Your task to perform on an android device: change your default location settings in chrome Image 0: 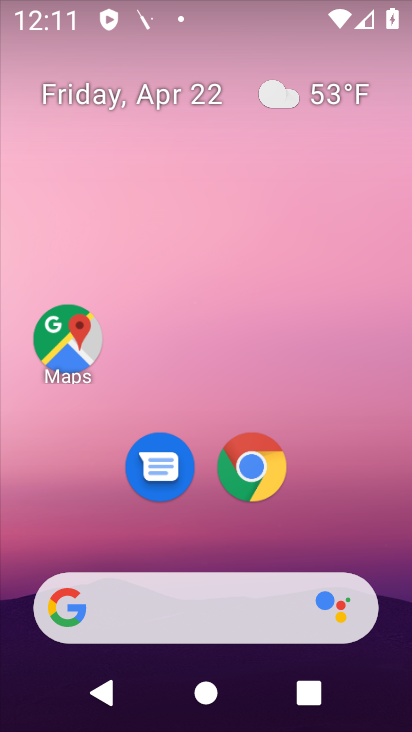
Step 0: click (246, 464)
Your task to perform on an android device: change your default location settings in chrome Image 1: 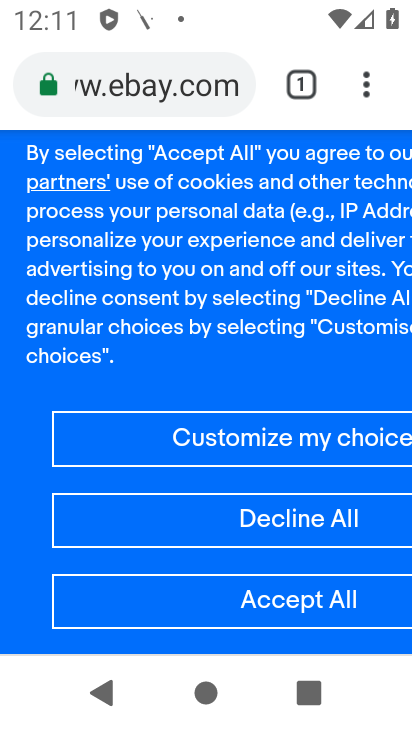
Step 1: click (368, 88)
Your task to perform on an android device: change your default location settings in chrome Image 2: 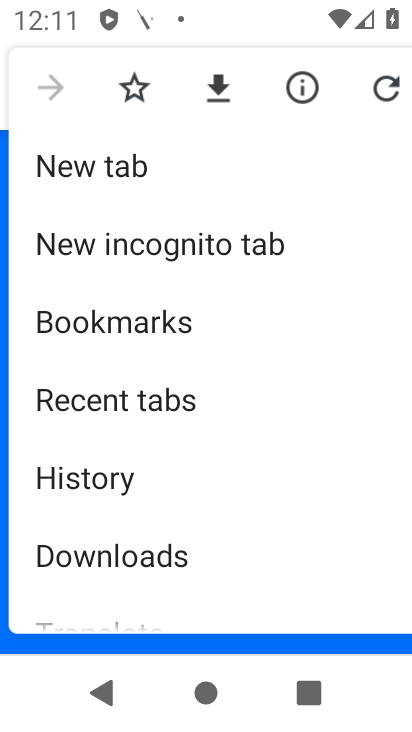
Step 2: drag from (229, 514) to (259, 337)
Your task to perform on an android device: change your default location settings in chrome Image 3: 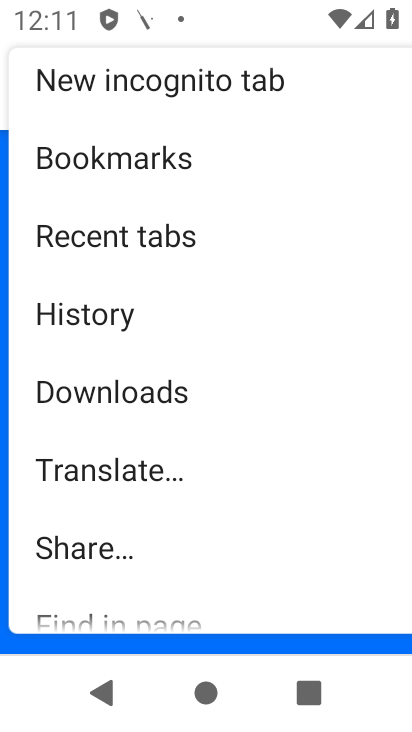
Step 3: drag from (223, 559) to (259, 272)
Your task to perform on an android device: change your default location settings in chrome Image 4: 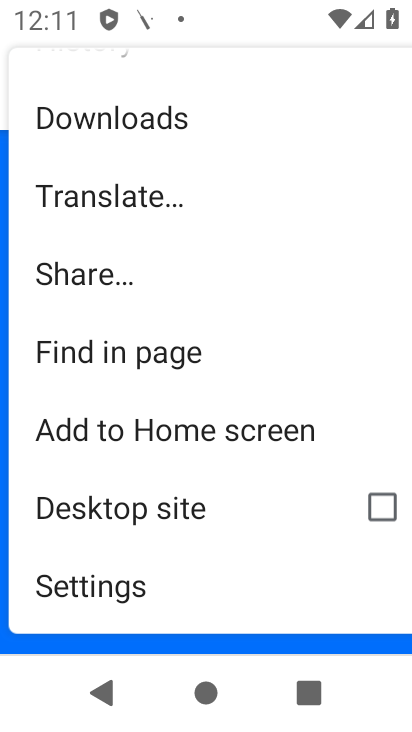
Step 4: click (110, 577)
Your task to perform on an android device: change your default location settings in chrome Image 5: 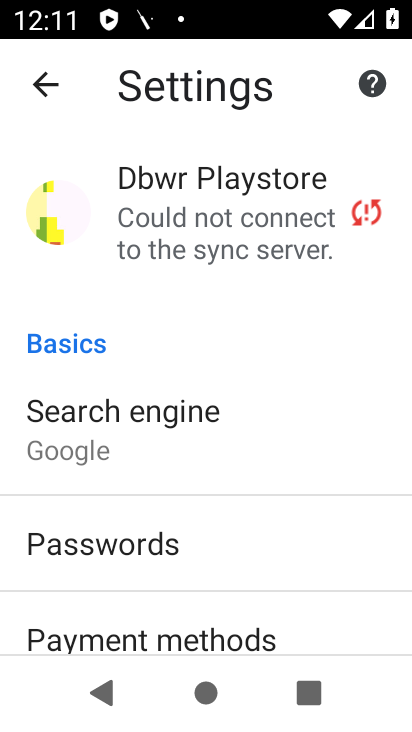
Step 5: drag from (204, 588) to (257, 287)
Your task to perform on an android device: change your default location settings in chrome Image 6: 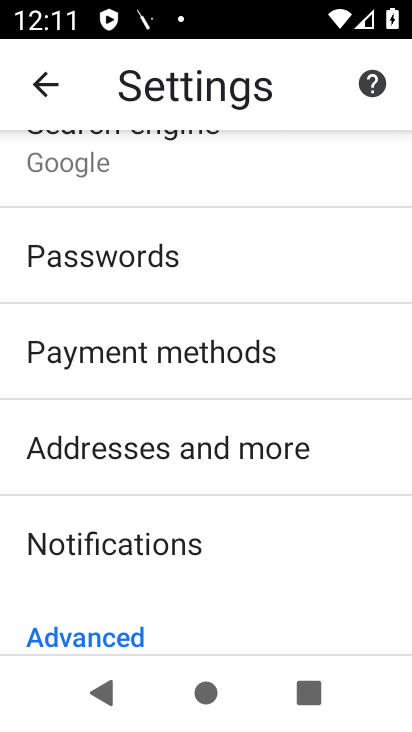
Step 6: drag from (250, 495) to (273, 238)
Your task to perform on an android device: change your default location settings in chrome Image 7: 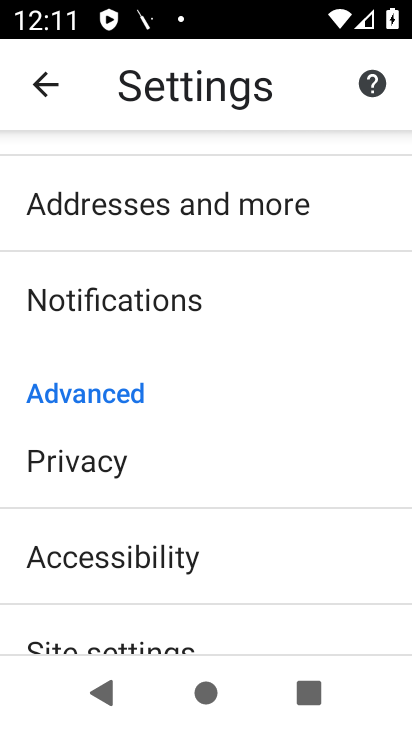
Step 7: drag from (183, 536) to (223, 243)
Your task to perform on an android device: change your default location settings in chrome Image 8: 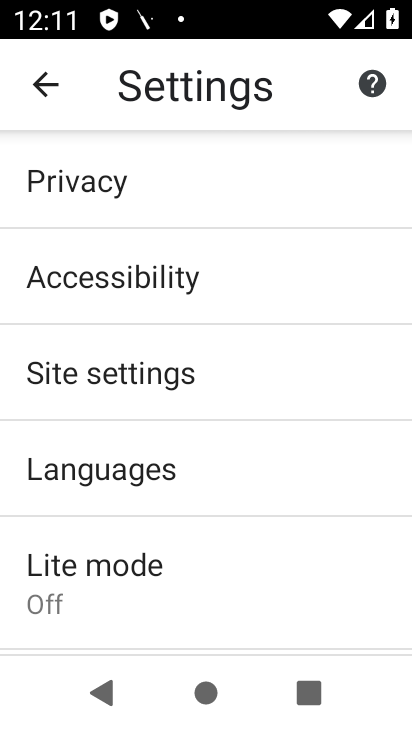
Step 8: click (112, 361)
Your task to perform on an android device: change your default location settings in chrome Image 9: 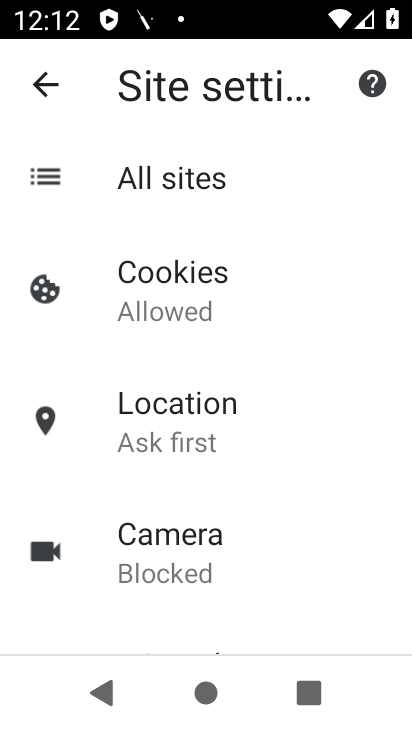
Step 9: drag from (254, 544) to (269, 195)
Your task to perform on an android device: change your default location settings in chrome Image 10: 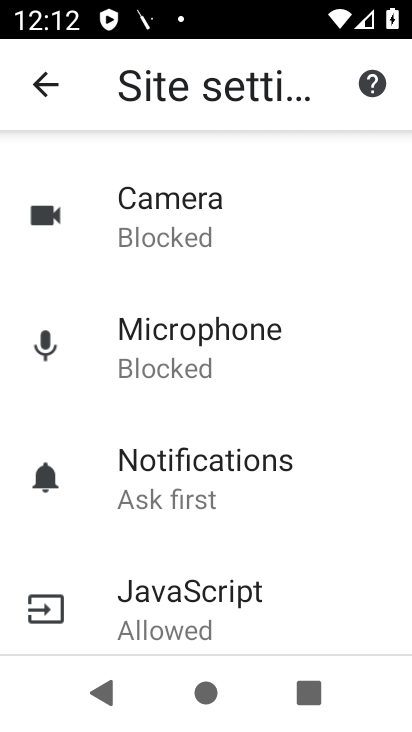
Step 10: drag from (246, 205) to (259, 544)
Your task to perform on an android device: change your default location settings in chrome Image 11: 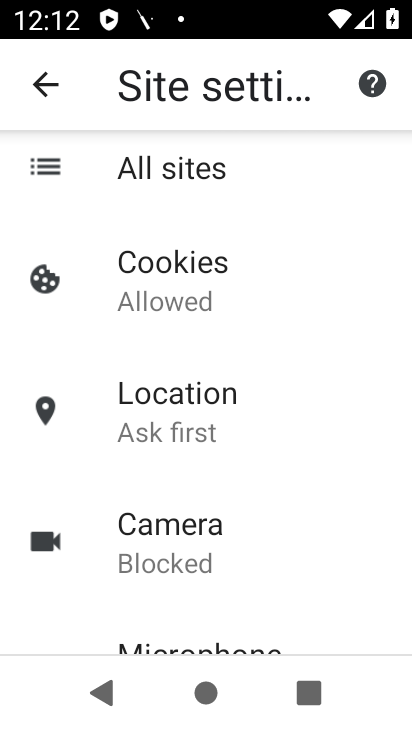
Step 11: click (162, 409)
Your task to perform on an android device: change your default location settings in chrome Image 12: 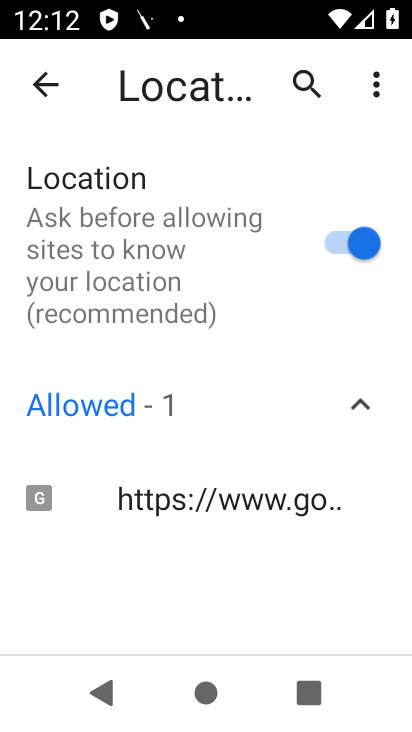
Step 12: click (332, 238)
Your task to perform on an android device: change your default location settings in chrome Image 13: 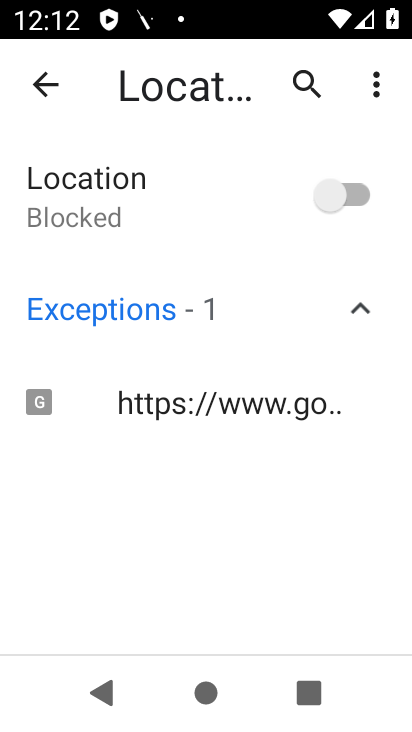
Step 13: task complete